Your task to perform on an android device: toggle data saver in the chrome app Image 0: 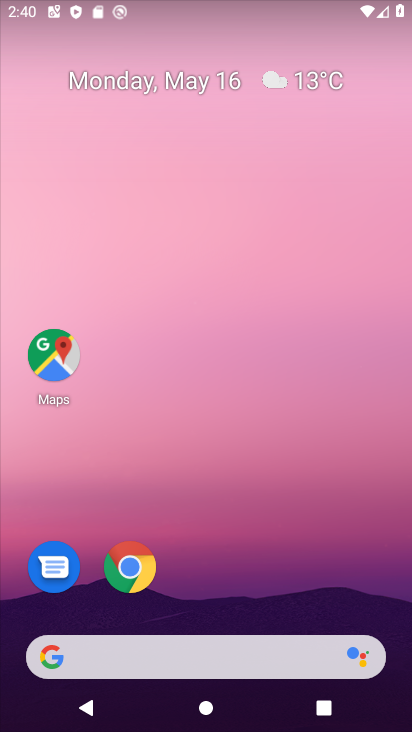
Step 0: click (130, 568)
Your task to perform on an android device: toggle data saver in the chrome app Image 1: 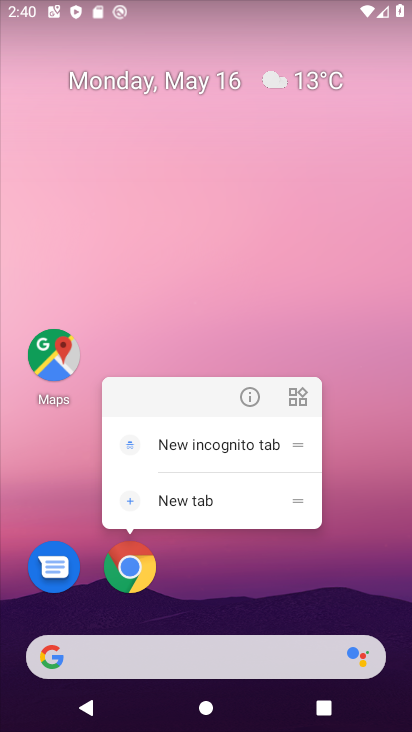
Step 1: click (130, 568)
Your task to perform on an android device: toggle data saver in the chrome app Image 2: 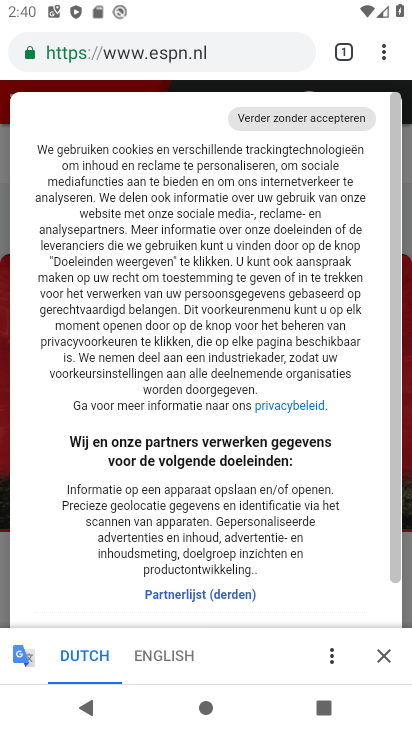
Step 2: drag from (385, 55) to (257, 618)
Your task to perform on an android device: toggle data saver in the chrome app Image 3: 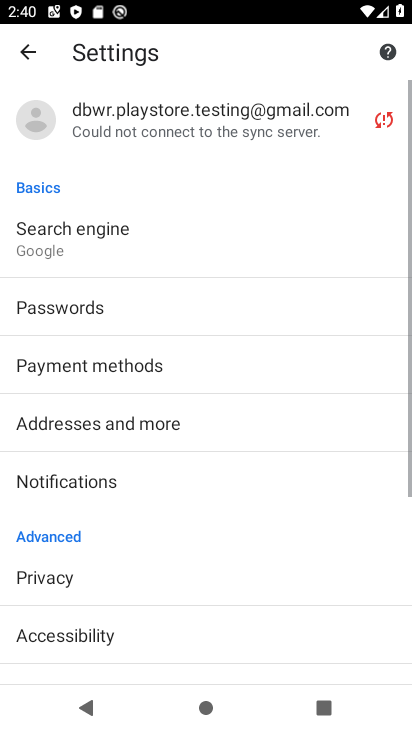
Step 3: drag from (231, 617) to (276, 62)
Your task to perform on an android device: toggle data saver in the chrome app Image 4: 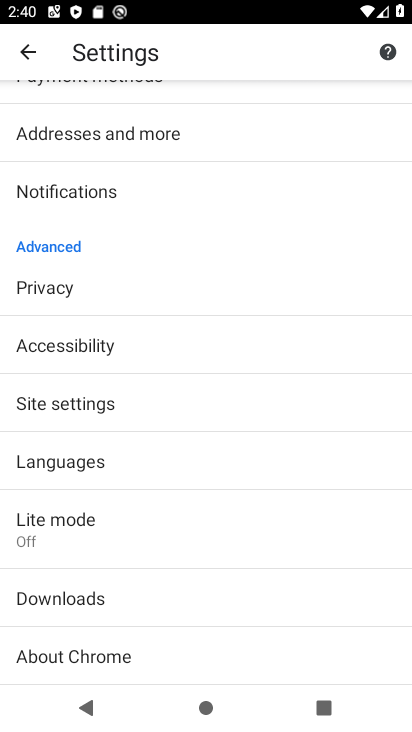
Step 4: click (105, 521)
Your task to perform on an android device: toggle data saver in the chrome app Image 5: 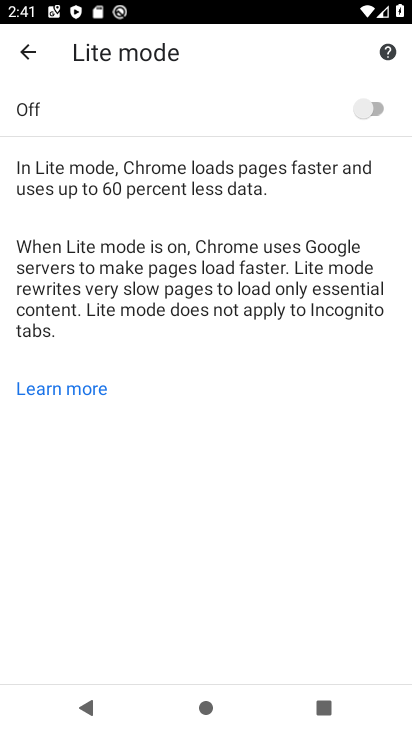
Step 5: task complete